Your task to perform on an android device: Open Google Chrome and click the shortcut for Amazon.com Image 0: 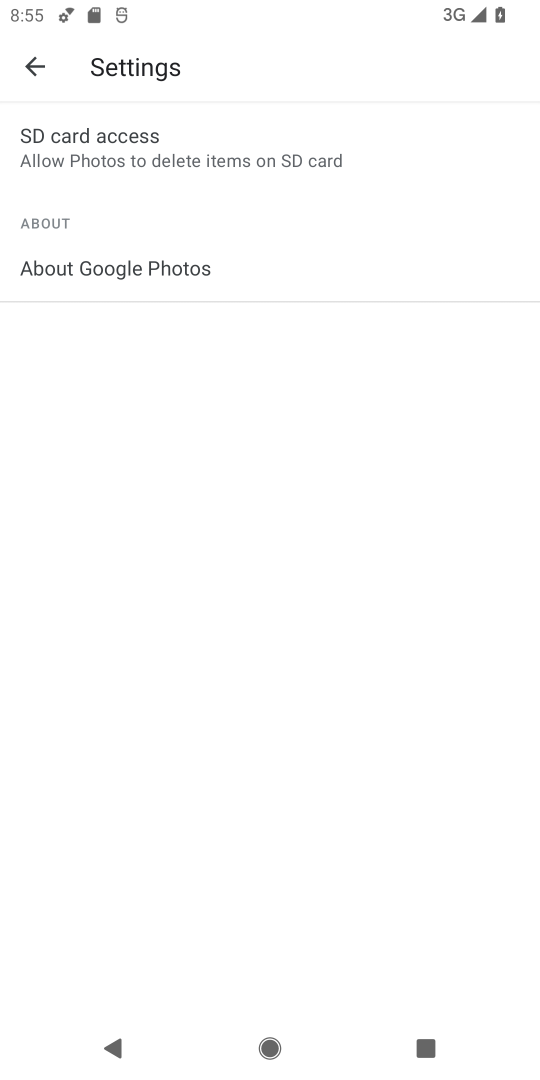
Step 0: press home button
Your task to perform on an android device: Open Google Chrome and click the shortcut for Amazon.com Image 1: 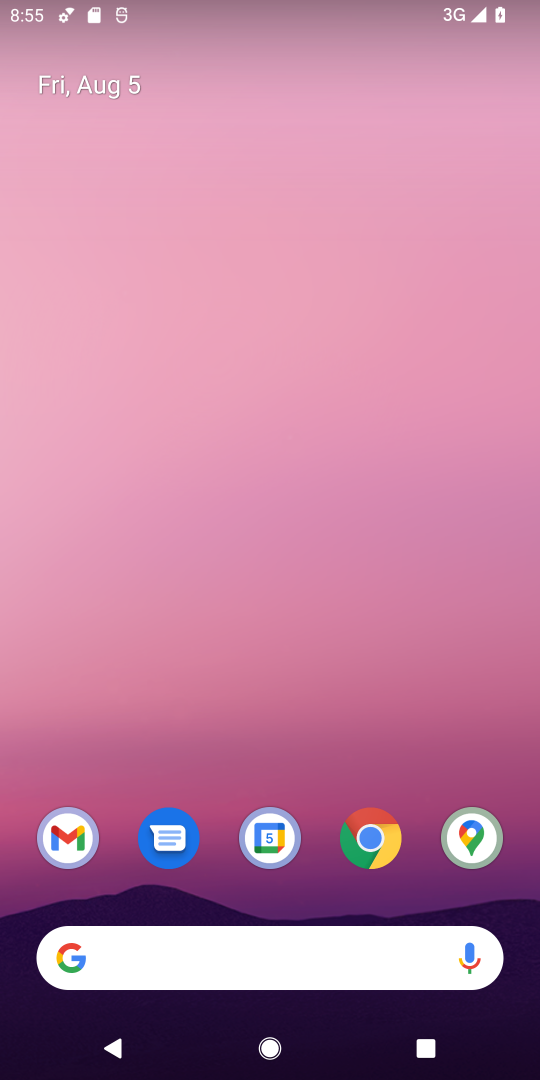
Step 1: click (359, 859)
Your task to perform on an android device: Open Google Chrome and click the shortcut for Amazon.com Image 2: 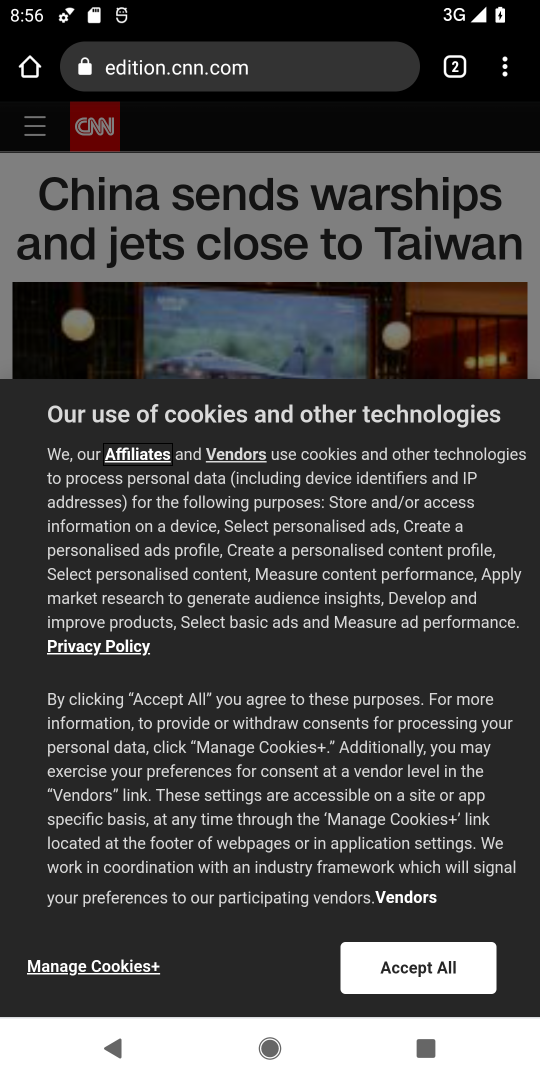
Step 2: click (454, 67)
Your task to perform on an android device: Open Google Chrome and click the shortcut for Amazon.com Image 3: 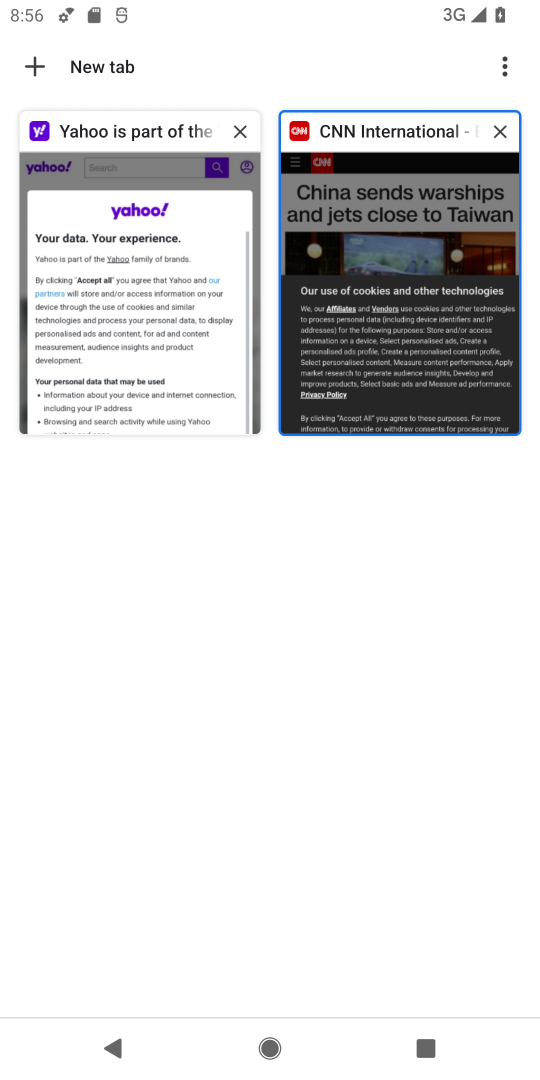
Step 3: click (25, 59)
Your task to perform on an android device: Open Google Chrome and click the shortcut for Amazon.com Image 4: 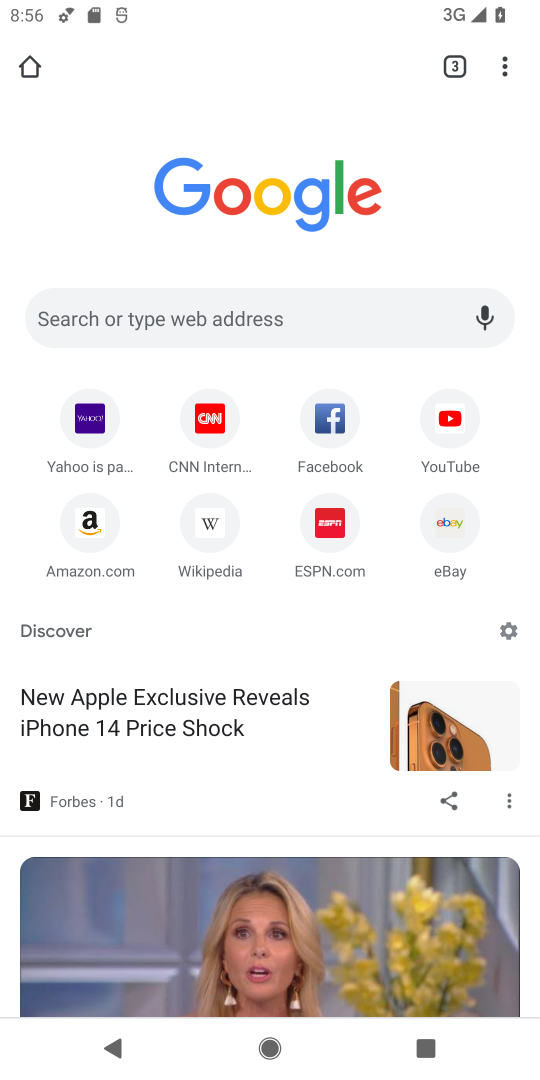
Step 4: click (79, 515)
Your task to perform on an android device: Open Google Chrome and click the shortcut for Amazon.com Image 5: 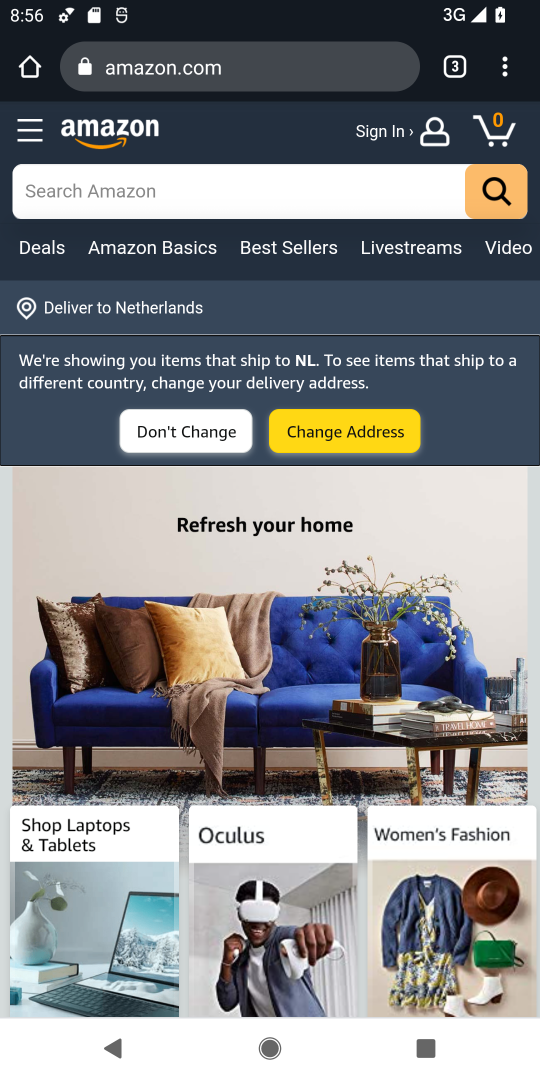
Step 5: task complete